Your task to perform on an android device: Turn on the flashlight Image 0: 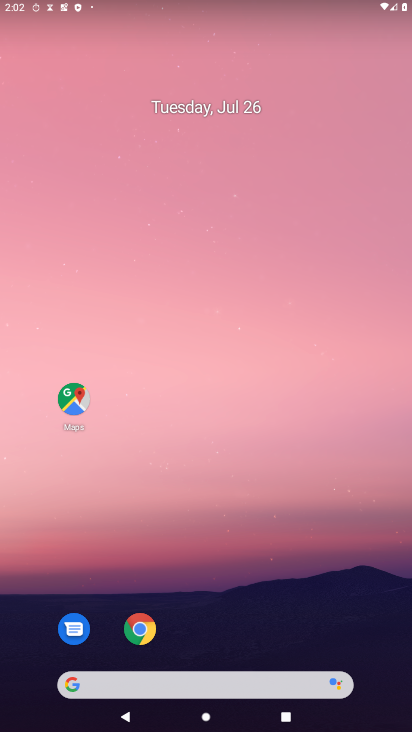
Step 0: drag from (243, 15) to (183, 546)
Your task to perform on an android device: Turn on the flashlight Image 1: 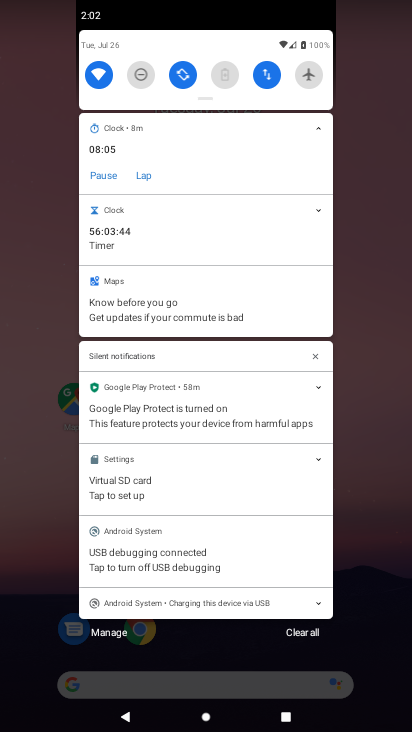
Step 1: task complete